Your task to perform on an android device: turn notification dots off Image 0: 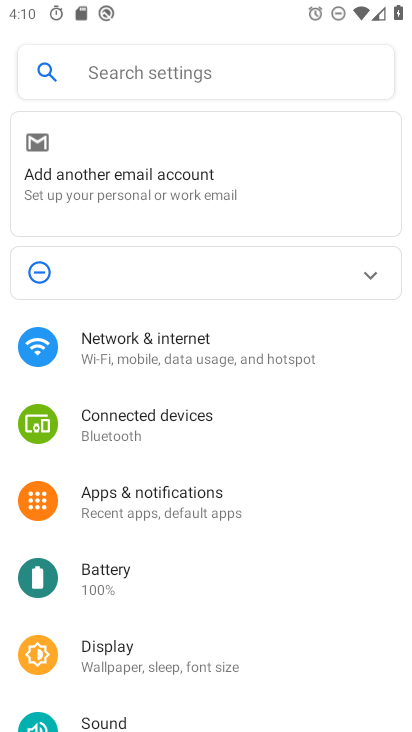
Step 0: press home button
Your task to perform on an android device: turn notification dots off Image 1: 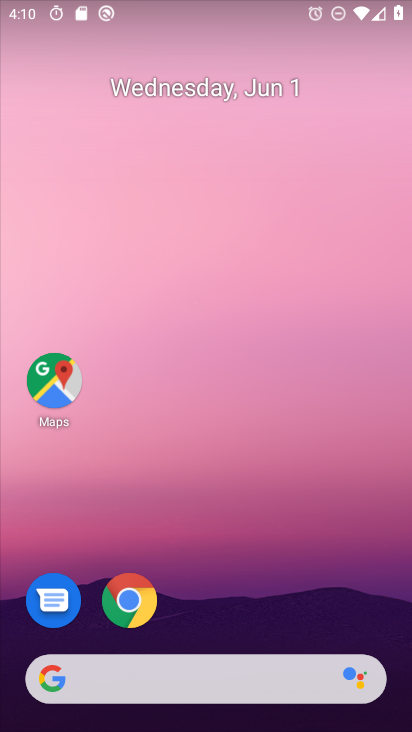
Step 1: drag from (233, 631) to (186, 105)
Your task to perform on an android device: turn notification dots off Image 2: 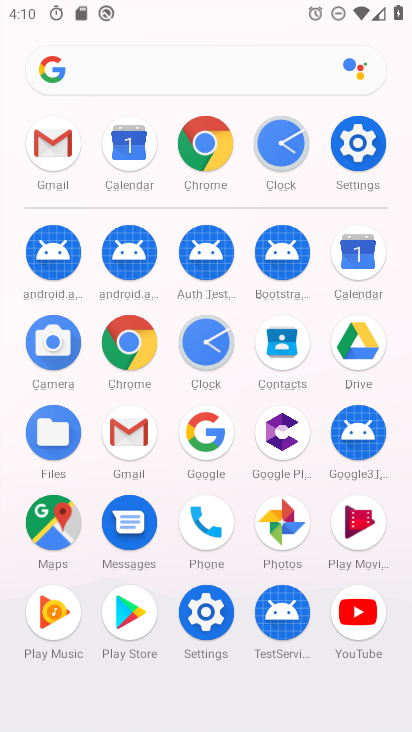
Step 2: click (353, 158)
Your task to perform on an android device: turn notification dots off Image 3: 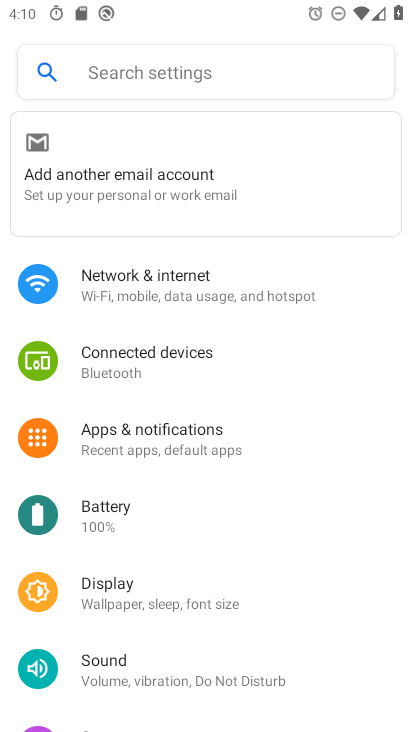
Step 3: click (137, 440)
Your task to perform on an android device: turn notification dots off Image 4: 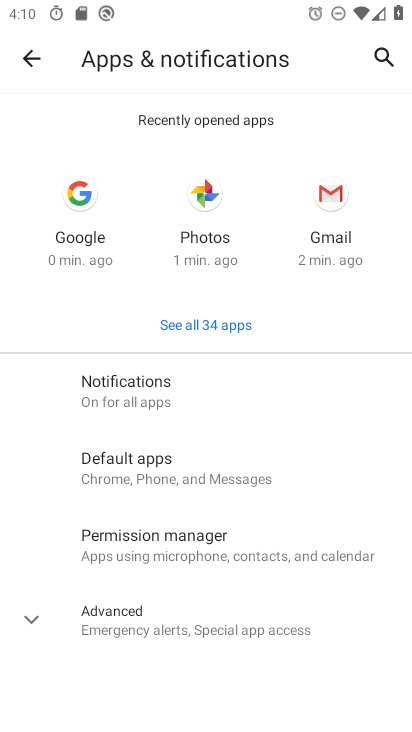
Step 4: click (149, 391)
Your task to perform on an android device: turn notification dots off Image 5: 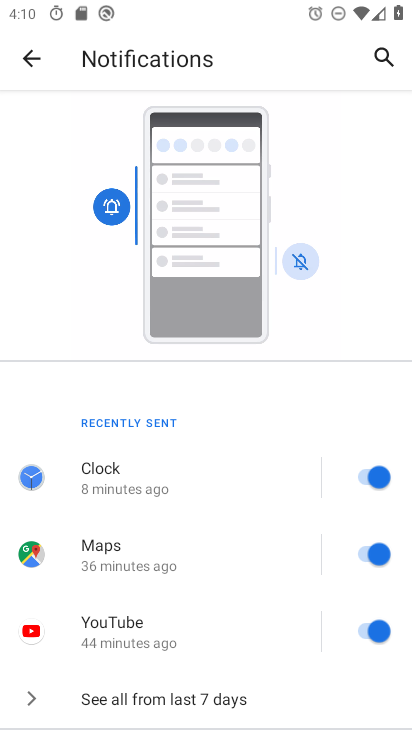
Step 5: drag from (202, 638) to (192, 402)
Your task to perform on an android device: turn notification dots off Image 6: 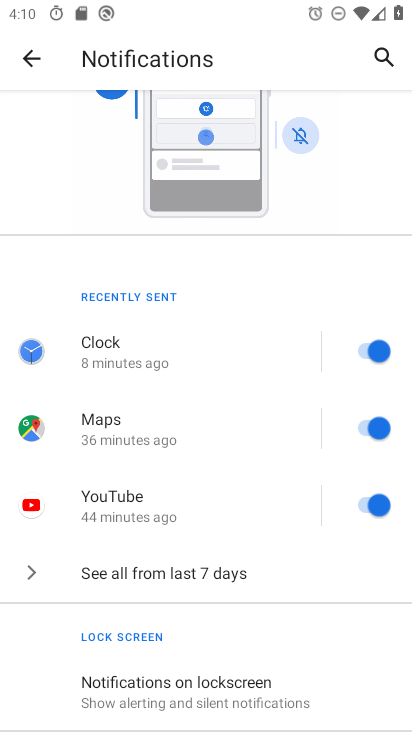
Step 6: drag from (259, 643) to (259, 322)
Your task to perform on an android device: turn notification dots off Image 7: 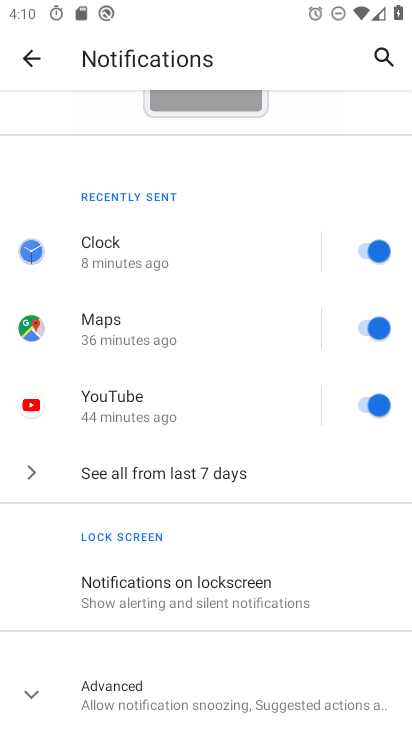
Step 7: click (141, 678)
Your task to perform on an android device: turn notification dots off Image 8: 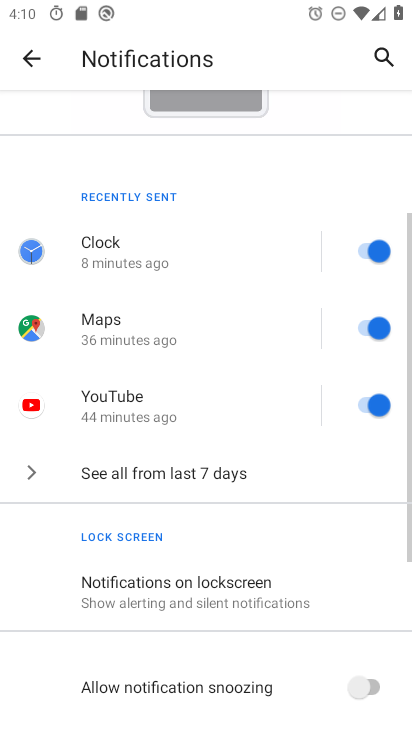
Step 8: drag from (136, 671) to (146, 422)
Your task to perform on an android device: turn notification dots off Image 9: 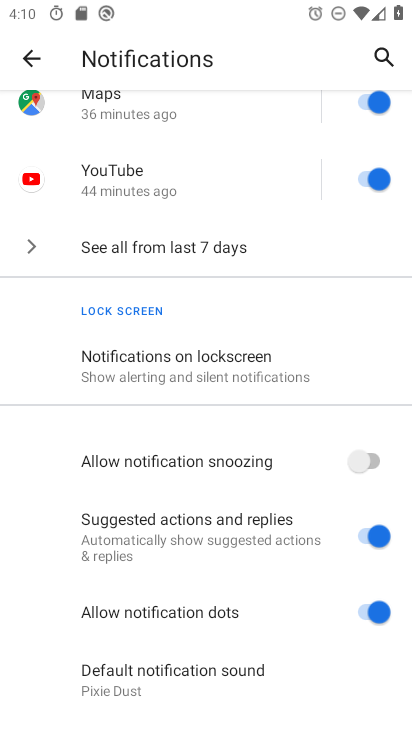
Step 9: click (373, 614)
Your task to perform on an android device: turn notification dots off Image 10: 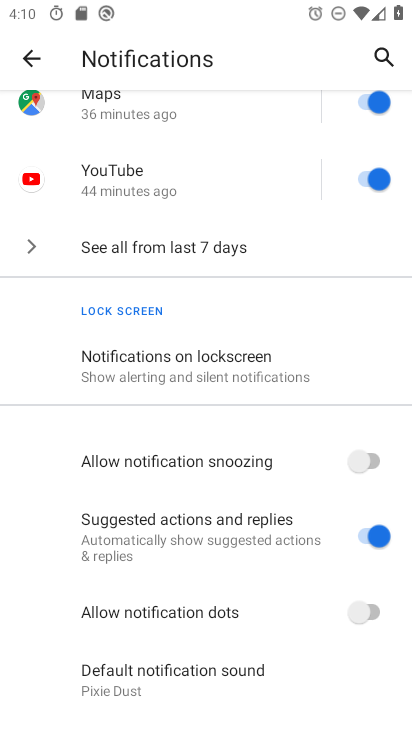
Step 10: task complete